Your task to perform on an android device: open app "Google Docs" (install if not already installed) Image 0: 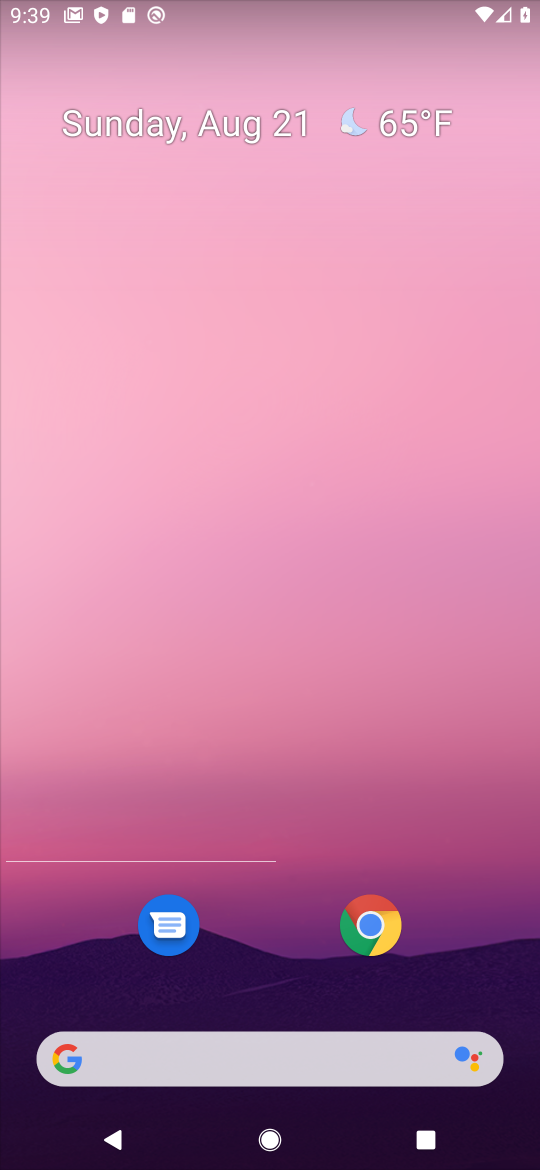
Step 0: press back button
Your task to perform on an android device: open app "Google Docs" (install if not already installed) Image 1: 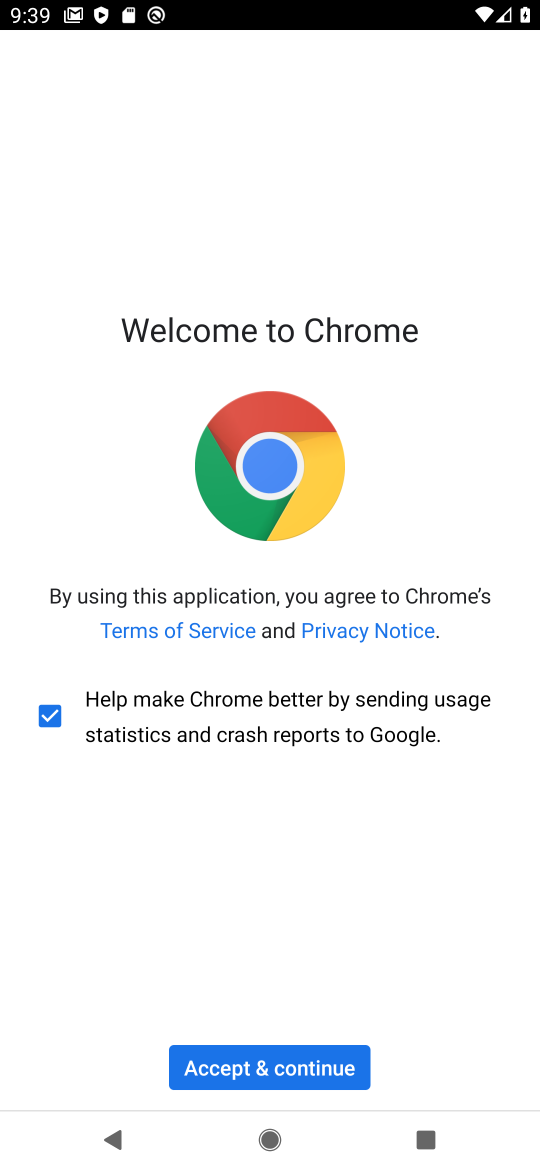
Step 1: click (267, 12)
Your task to perform on an android device: open app "Google Docs" (install if not already installed) Image 2: 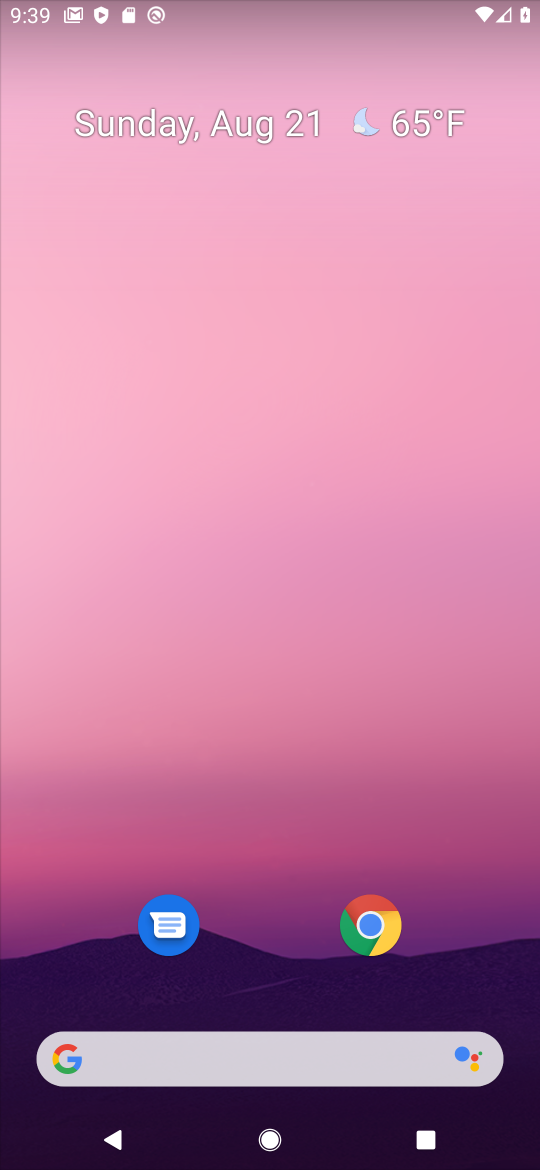
Step 2: drag from (229, 854) to (307, 68)
Your task to perform on an android device: open app "Google Docs" (install if not already installed) Image 3: 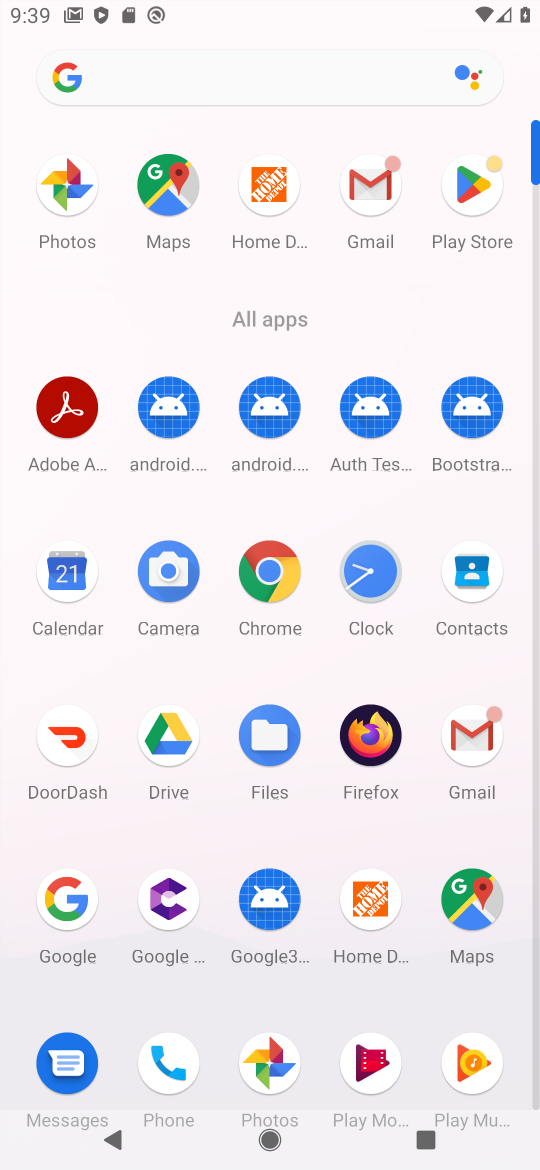
Step 3: click (452, 174)
Your task to perform on an android device: open app "Google Docs" (install if not already installed) Image 4: 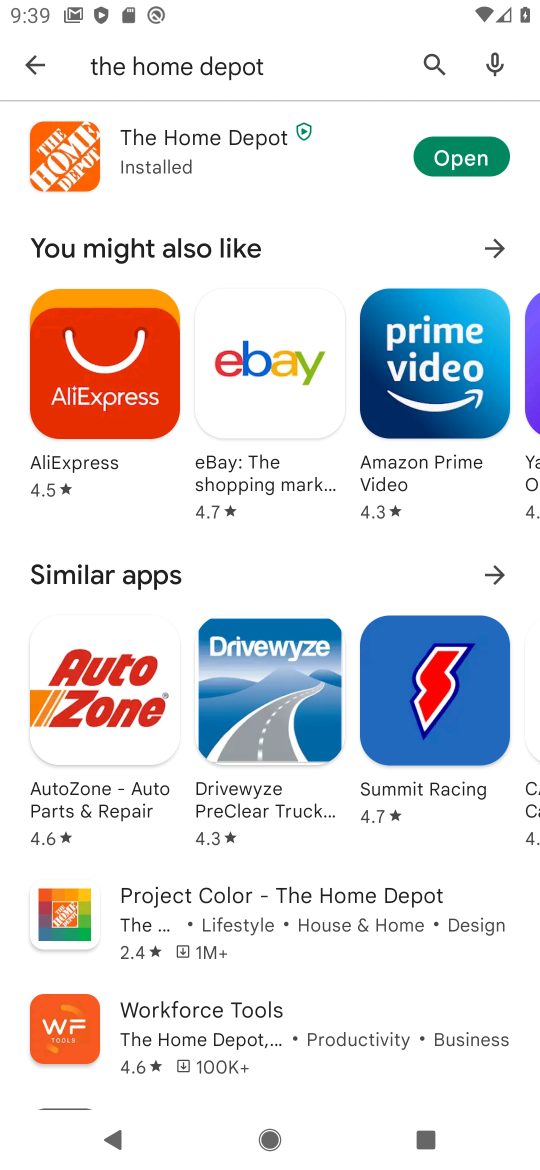
Step 4: click (434, 34)
Your task to perform on an android device: open app "Google Docs" (install if not already installed) Image 5: 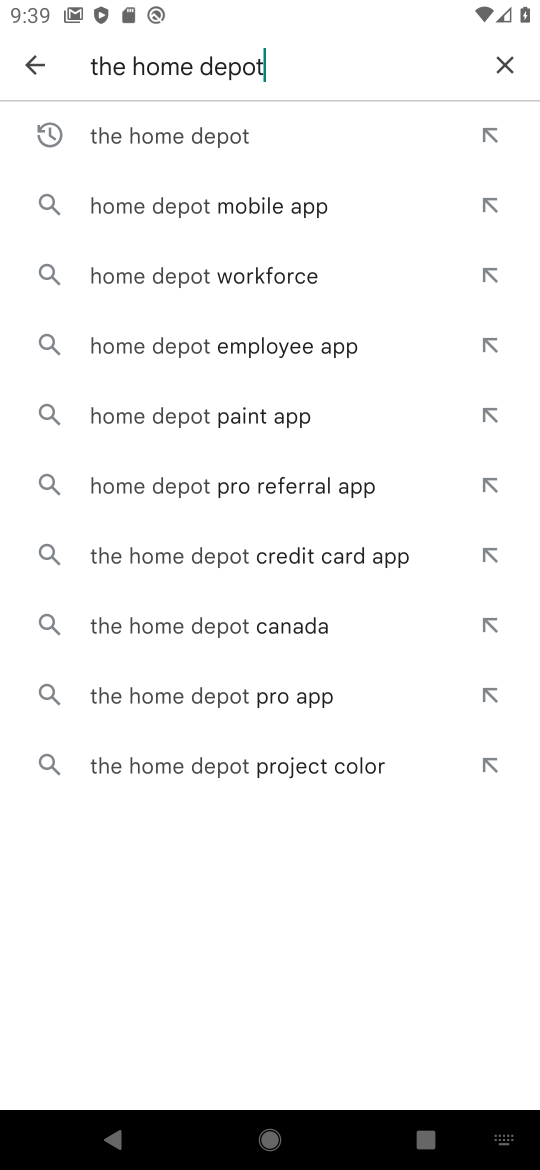
Step 5: click (503, 66)
Your task to perform on an android device: open app "Google Docs" (install if not already installed) Image 6: 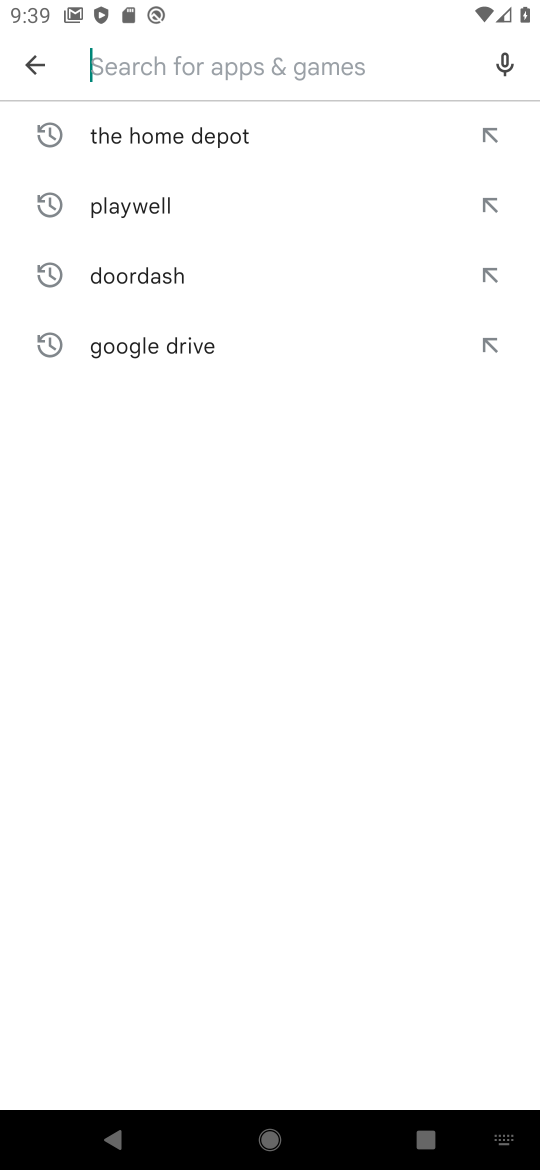
Step 6: click (230, 68)
Your task to perform on an android device: open app "Google Docs" (install if not already installed) Image 7: 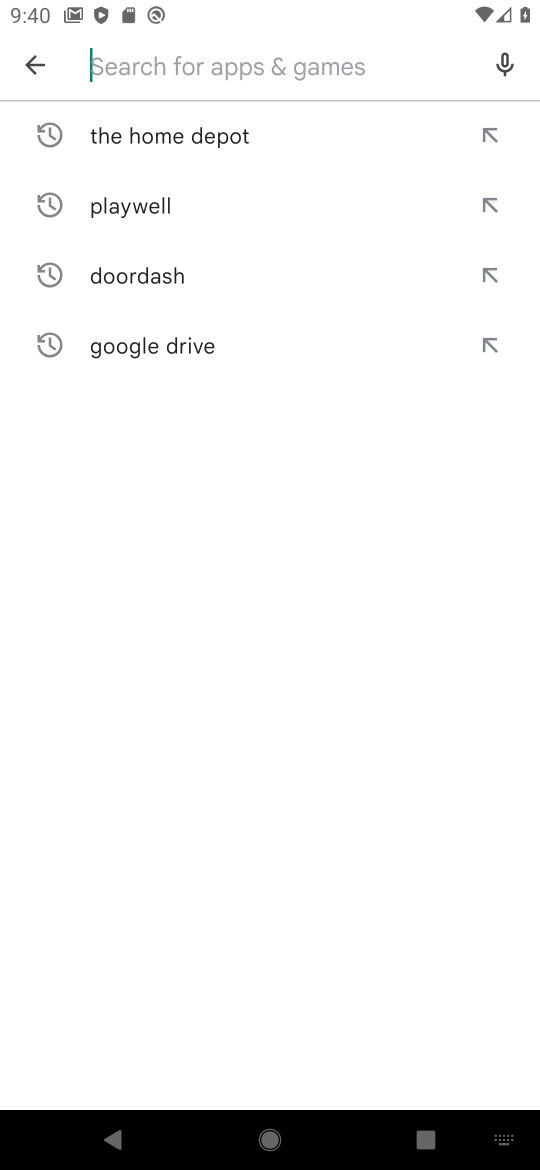
Step 7: click (180, 90)
Your task to perform on an android device: open app "Google Docs" (install if not already installed) Image 8: 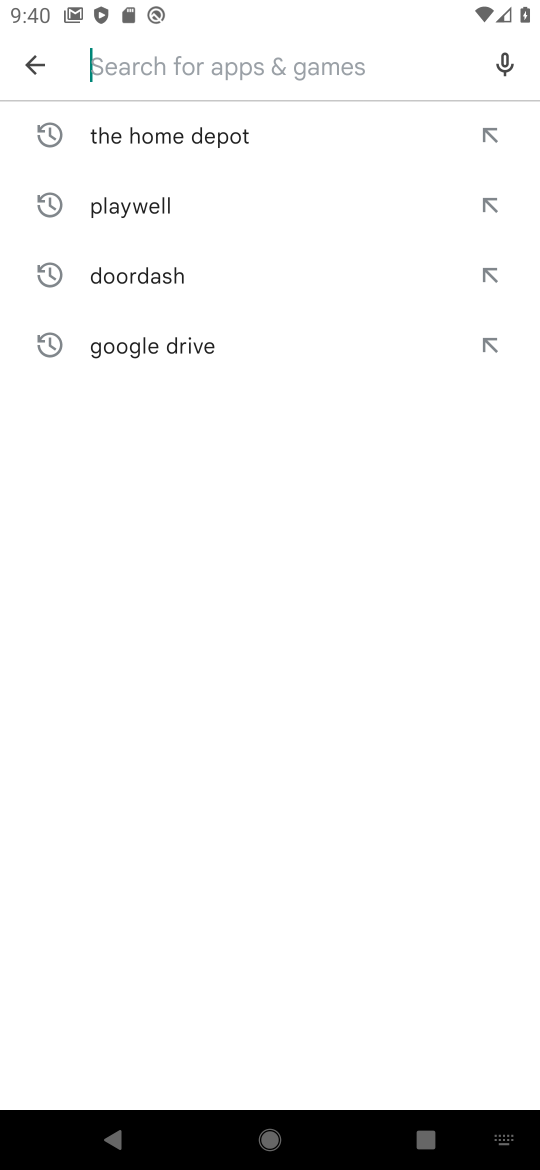
Step 8: type "Google Docs"
Your task to perform on an android device: open app "Google Docs" (install if not already installed) Image 9: 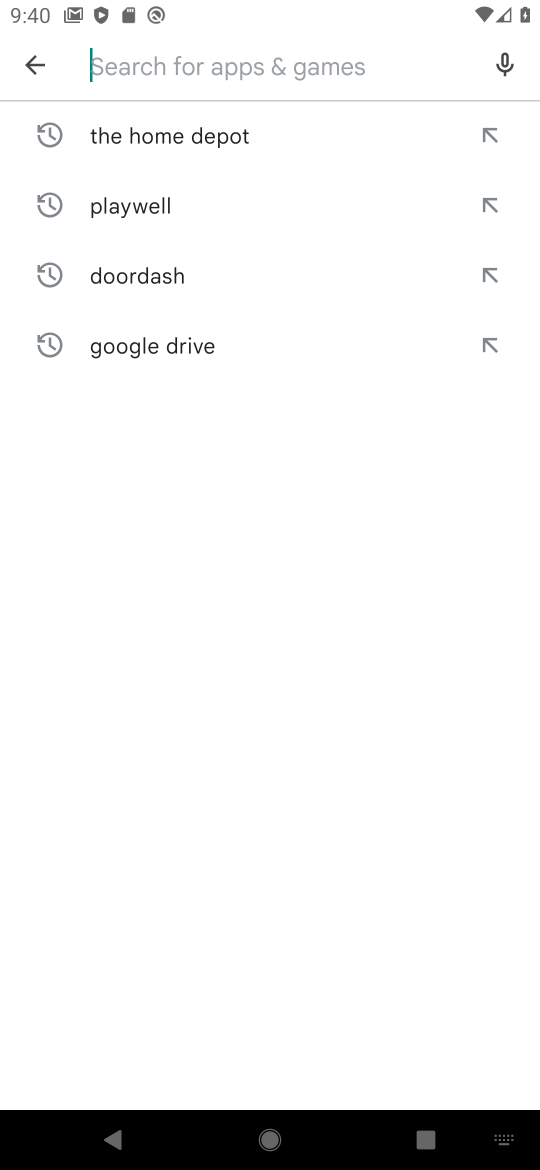
Step 9: click (249, 475)
Your task to perform on an android device: open app "Google Docs" (install if not already installed) Image 10: 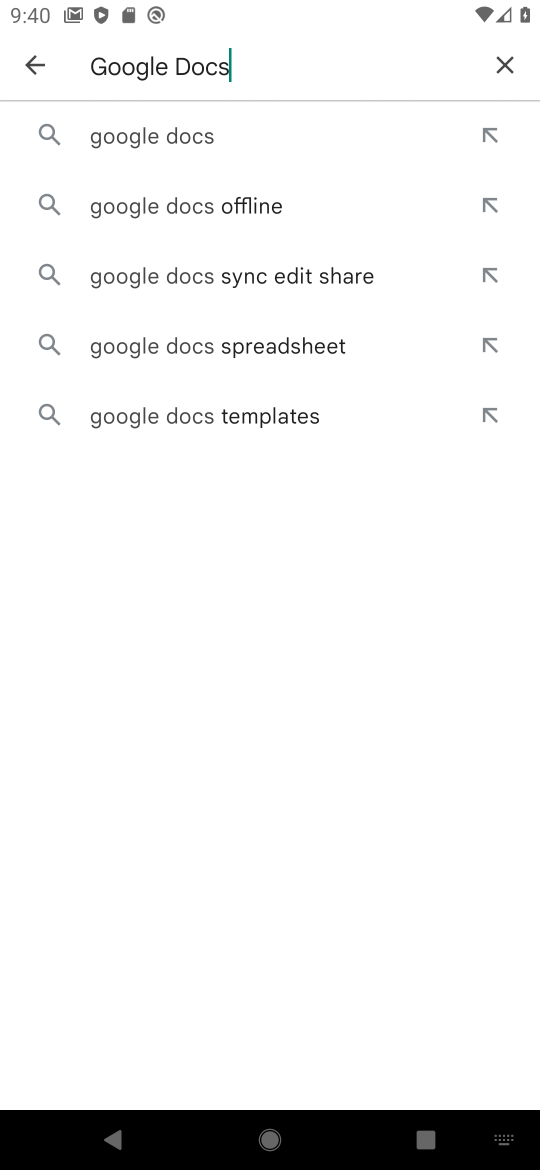
Step 10: click (139, 131)
Your task to perform on an android device: open app "Google Docs" (install if not already installed) Image 11: 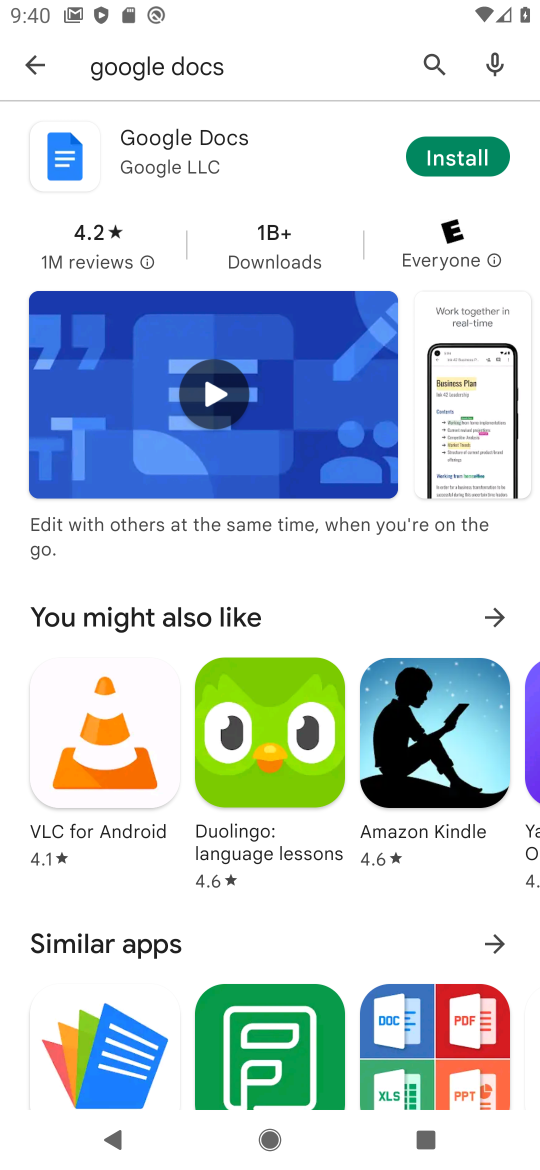
Step 11: click (457, 138)
Your task to perform on an android device: open app "Google Docs" (install if not already installed) Image 12: 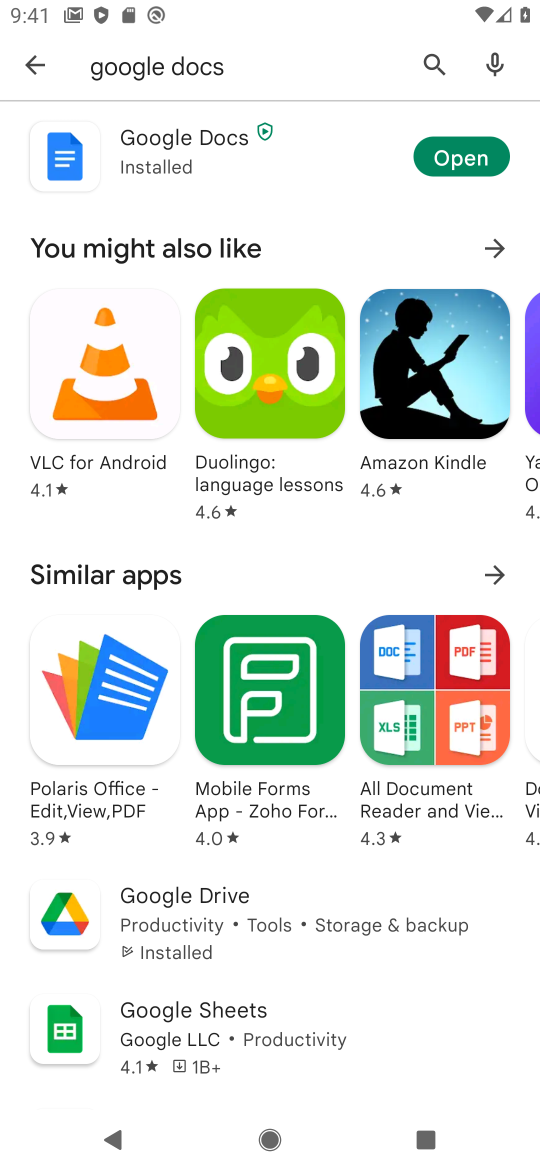
Step 12: click (440, 152)
Your task to perform on an android device: open app "Google Docs" (install if not already installed) Image 13: 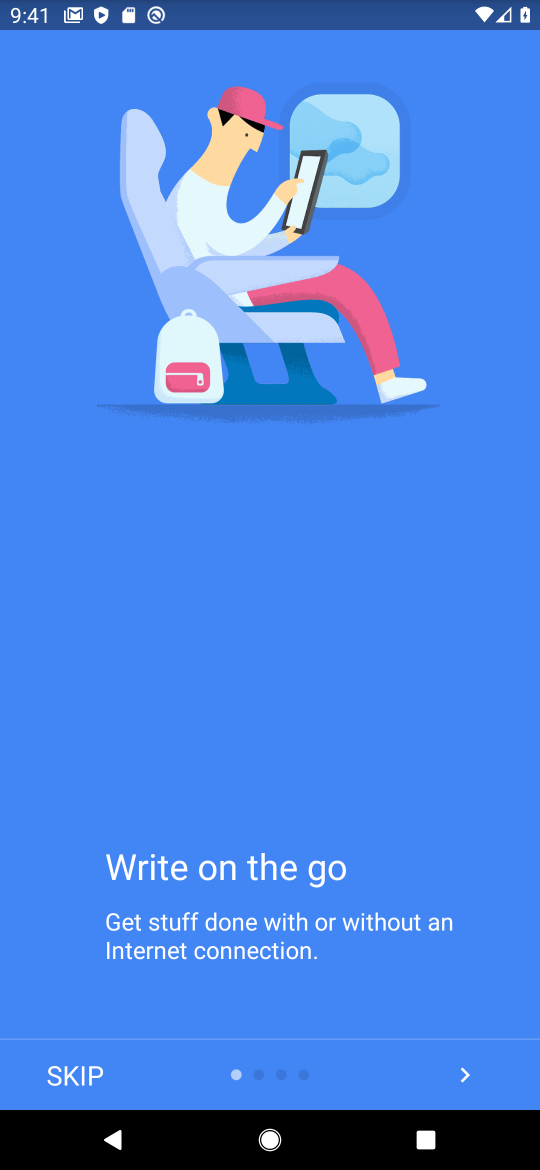
Step 13: click (83, 1078)
Your task to perform on an android device: open app "Google Docs" (install if not already installed) Image 14: 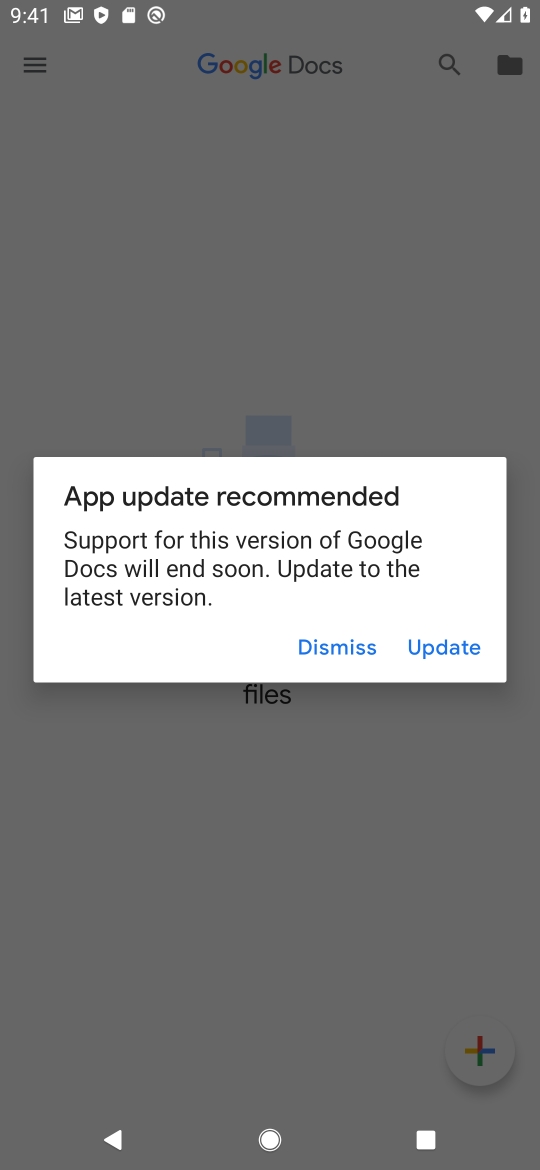
Step 14: task complete